Your task to perform on an android device: allow notifications from all sites in the chrome app Image 0: 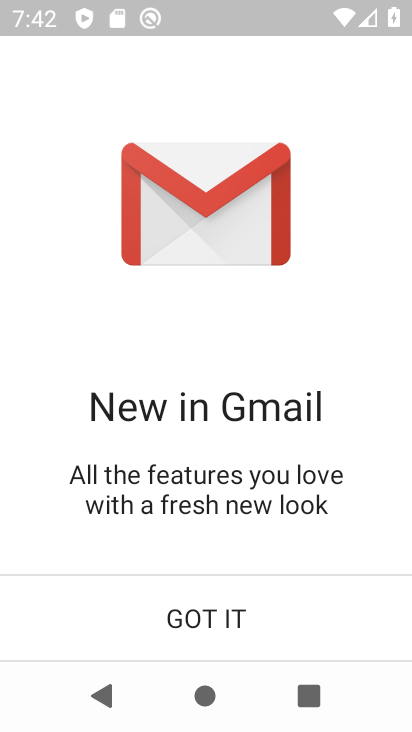
Step 0: press home button
Your task to perform on an android device: allow notifications from all sites in the chrome app Image 1: 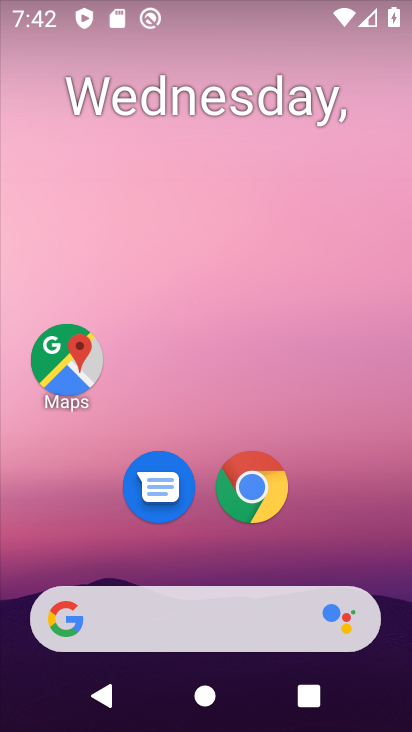
Step 1: drag from (374, 545) to (375, 111)
Your task to perform on an android device: allow notifications from all sites in the chrome app Image 2: 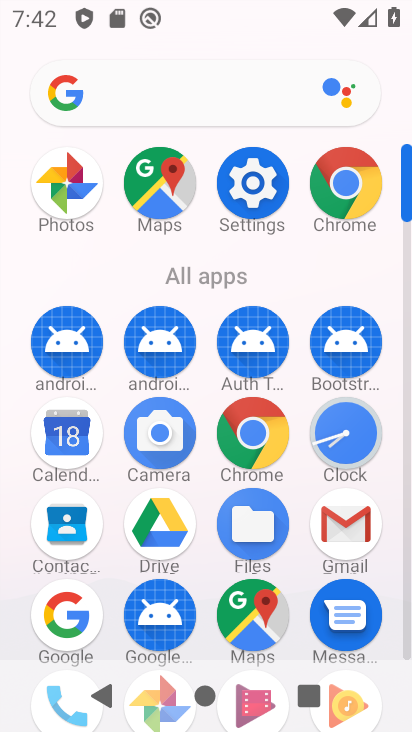
Step 2: click (272, 445)
Your task to perform on an android device: allow notifications from all sites in the chrome app Image 3: 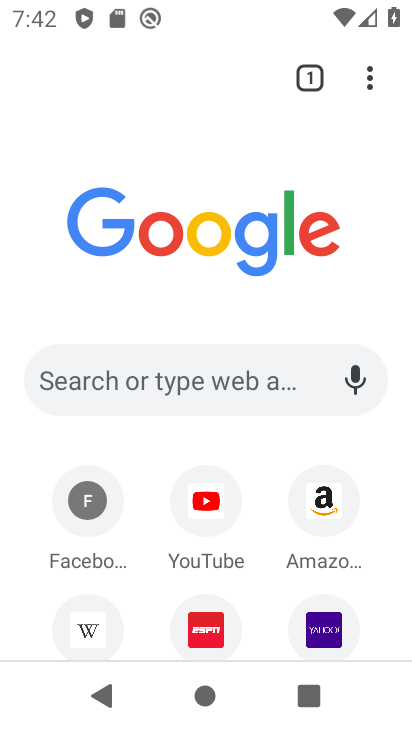
Step 3: click (366, 83)
Your task to perform on an android device: allow notifications from all sites in the chrome app Image 4: 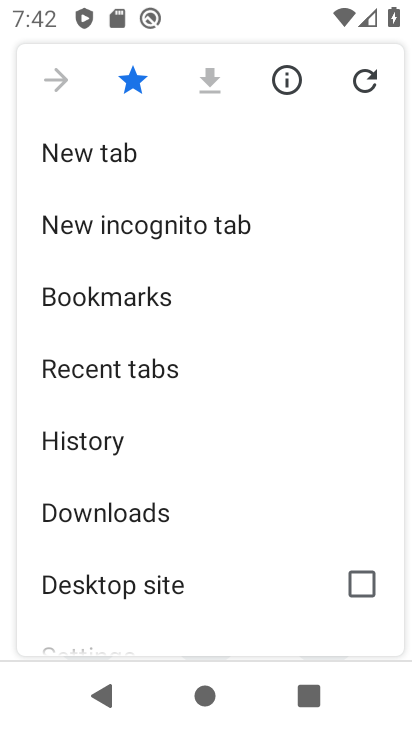
Step 4: drag from (307, 496) to (335, 353)
Your task to perform on an android device: allow notifications from all sites in the chrome app Image 5: 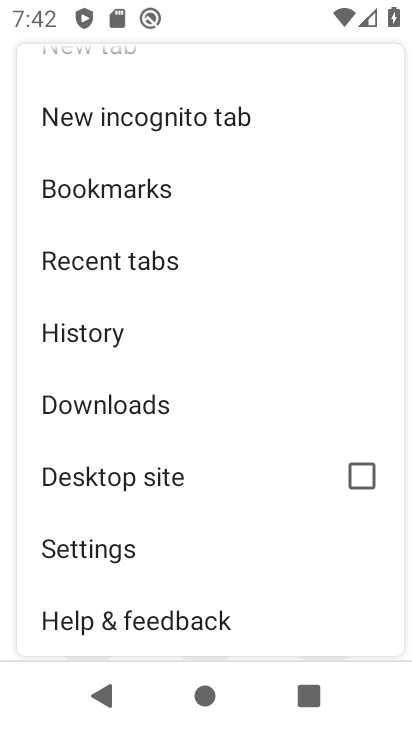
Step 5: drag from (264, 564) to (273, 362)
Your task to perform on an android device: allow notifications from all sites in the chrome app Image 6: 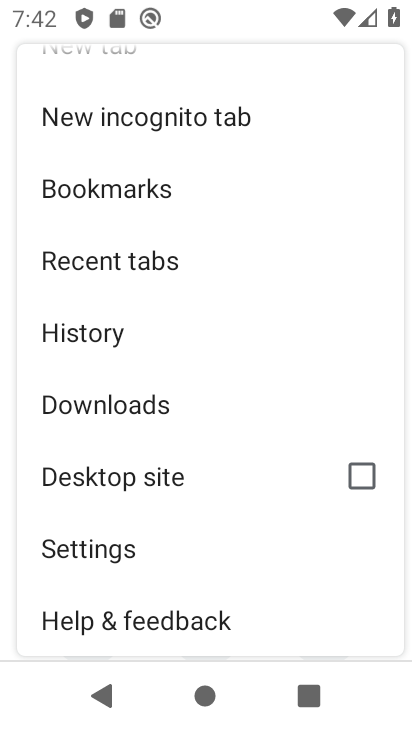
Step 6: click (184, 558)
Your task to perform on an android device: allow notifications from all sites in the chrome app Image 7: 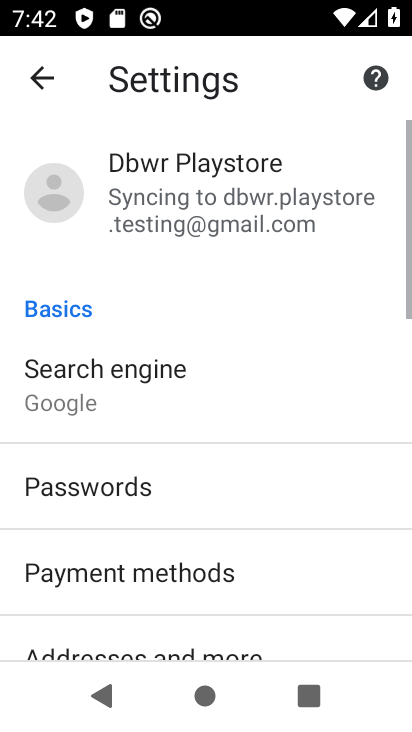
Step 7: drag from (305, 573) to (341, 468)
Your task to perform on an android device: allow notifications from all sites in the chrome app Image 8: 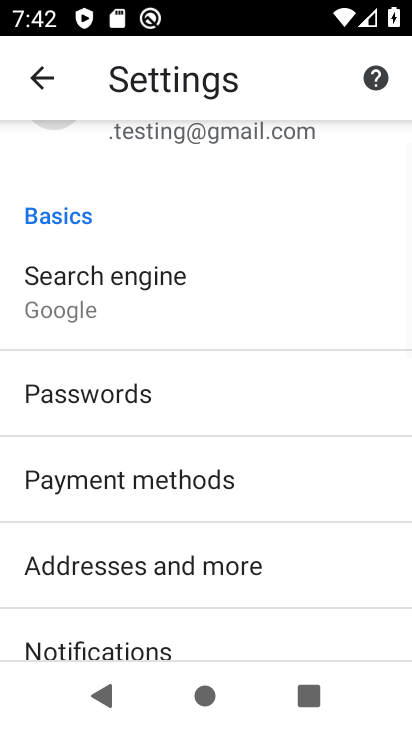
Step 8: drag from (330, 573) to (348, 474)
Your task to perform on an android device: allow notifications from all sites in the chrome app Image 9: 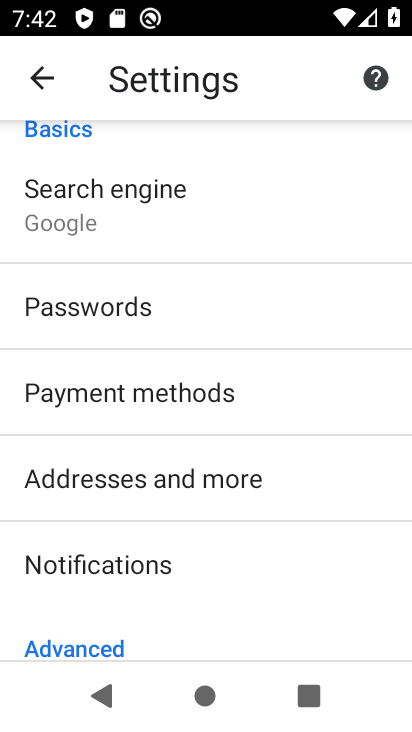
Step 9: drag from (332, 587) to (347, 489)
Your task to perform on an android device: allow notifications from all sites in the chrome app Image 10: 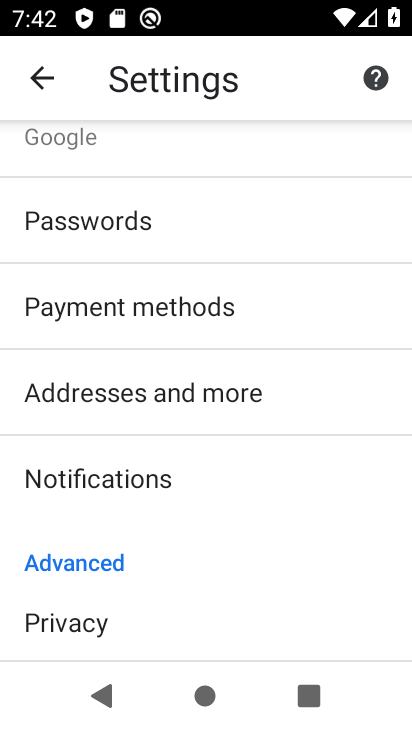
Step 10: drag from (321, 599) to (330, 502)
Your task to perform on an android device: allow notifications from all sites in the chrome app Image 11: 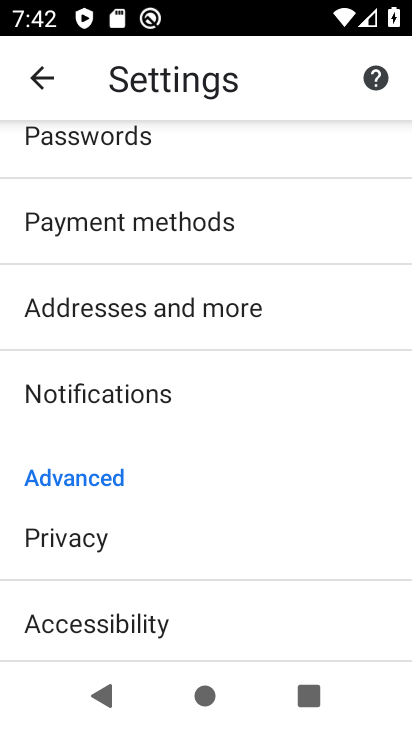
Step 11: drag from (319, 614) to (322, 512)
Your task to perform on an android device: allow notifications from all sites in the chrome app Image 12: 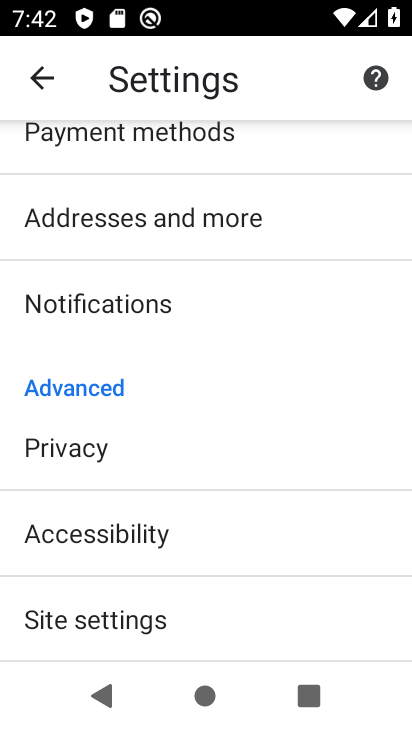
Step 12: drag from (314, 610) to (322, 521)
Your task to perform on an android device: allow notifications from all sites in the chrome app Image 13: 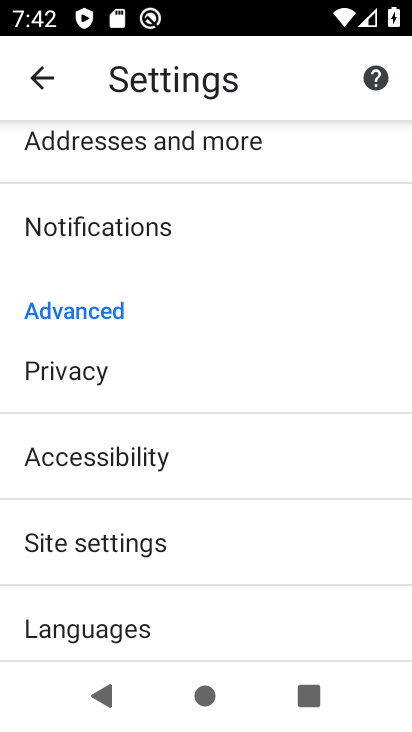
Step 13: drag from (301, 617) to (302, 522)
Your task to perform on an android device: allow notifications from all sites in the chrome app Image 14: 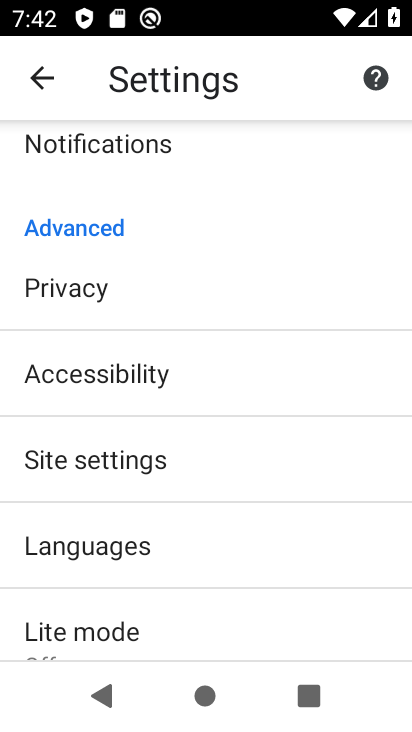
Step 14: drag from (293, 617) to (299, 538)
Your task to perform on an android device: allow notifications from all sites in the chrome app Image 15: 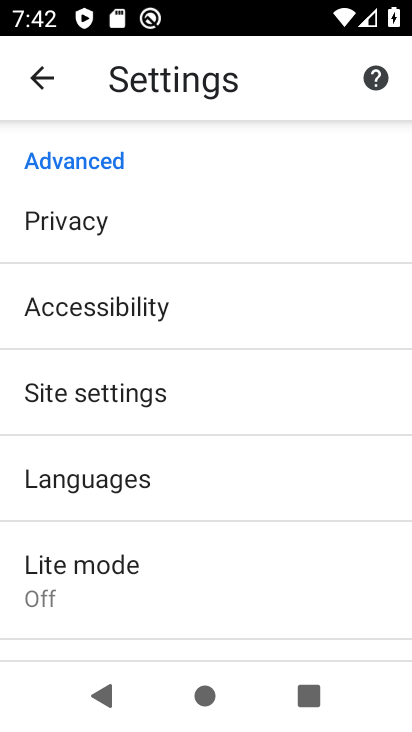
Step 15: drag from (274, 611) to (272, 537)
Your task to perform on an android device: allow notifications from all sites in the chrome app Image 16: 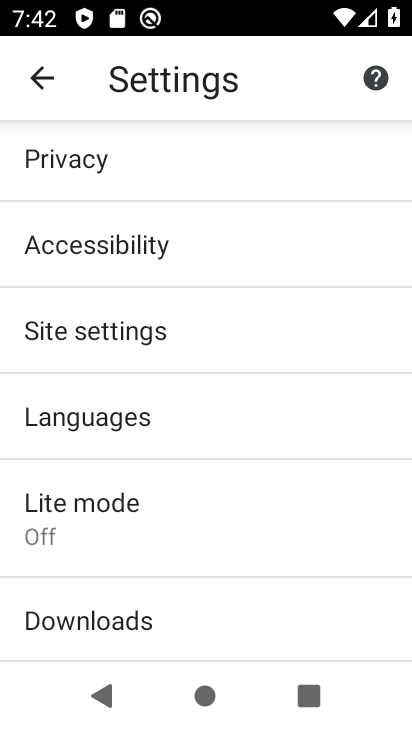
Step 16: click (274, 334)
Your task to perform on an android device: allow notifications from all sites in the chrome app Image 17: 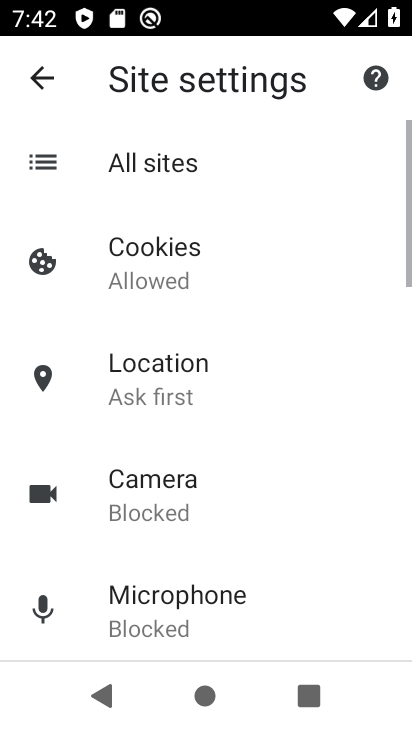
Step 17: drag from (314, 550) to (320, 491)
Your task to perform on an android device: allow notifications from all sites in the chrome app Image 18: 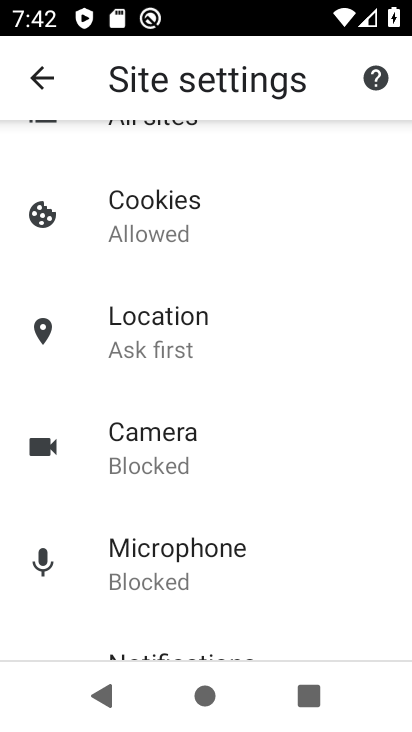
Step 18: drag from (310, 560) to (321, 491)
Your task to perform on an android device: allow notifications from all sites in the chrome app Image 19: 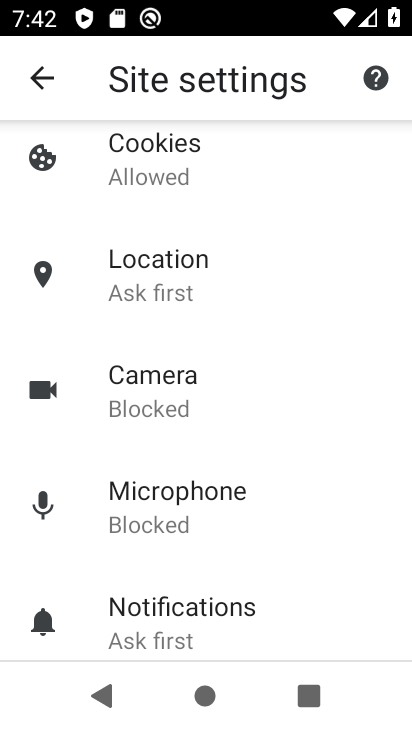
Step 19: drag from (315, 602) to (330, 508)
Your task to perform on an android device: allow notifications from all sites in the chrome app Image 20: 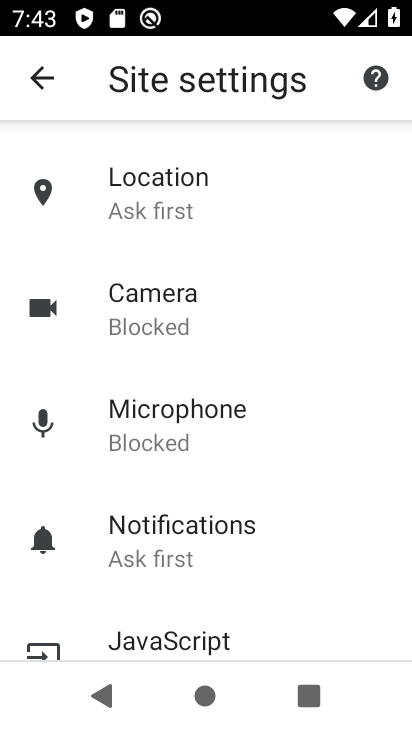
Step 20: drag from (334, 583) to (332, 481)
Your task to perform on an android device: allow notifications from all sites in the chrome app Image 21: 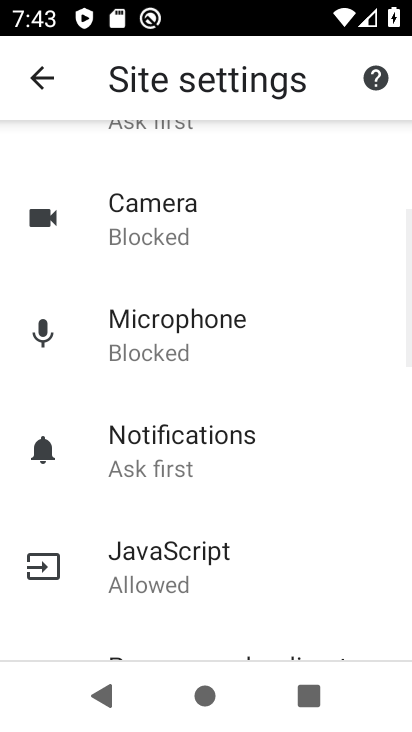
Step 21: drag from (327, 592) to (333, 513)
Your task to perform on an android device: allow notifications from all sites in the chrome app Image 22: 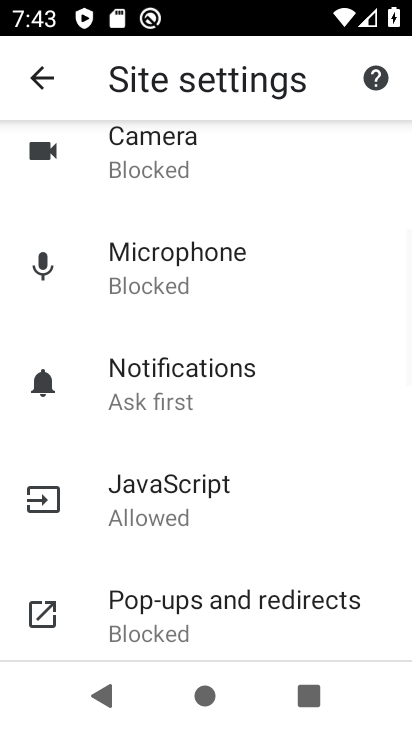
Step 22: click (251, 381)
Your task to perform on an android device: allow notifications from all sites in the chrome app Image 23: 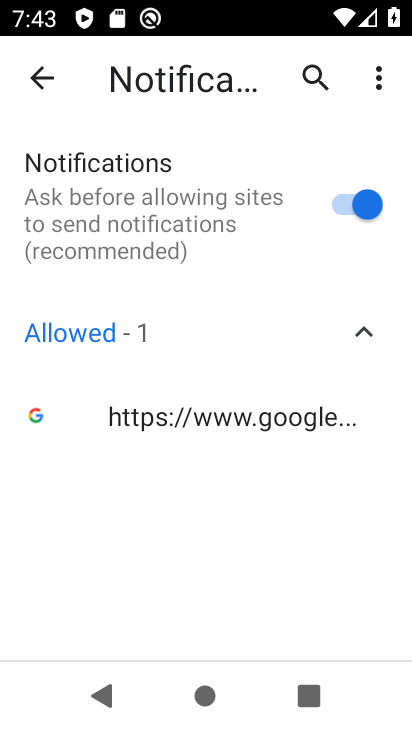
Step 23: task complete